Your task to perform on an android device: Go to accessibility settings Image 0: 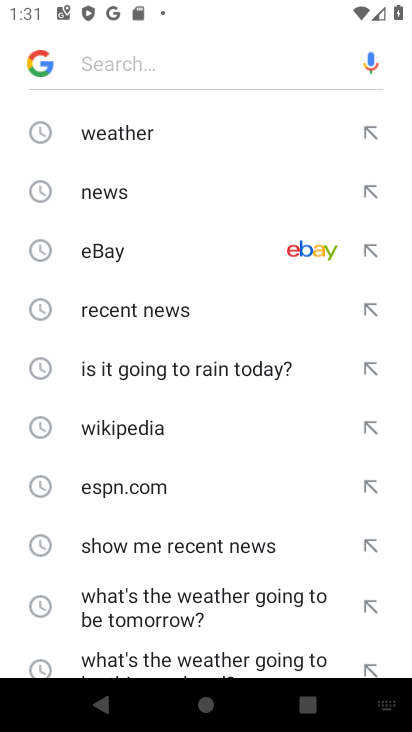
Step 0: press home button
Your task to perform on an android device: Go to accessibility settings Image 1: 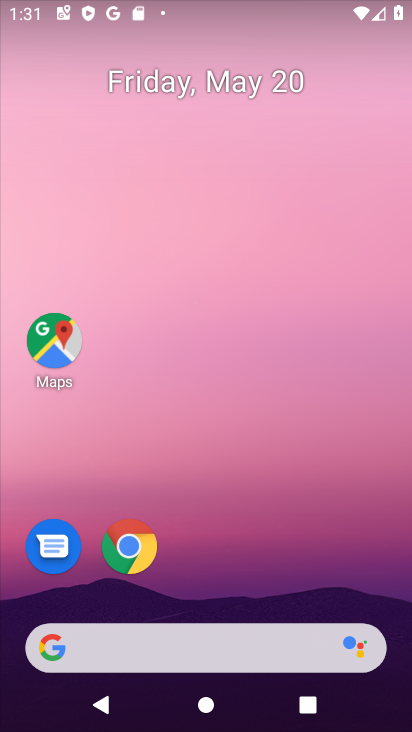
Step 1: drag from (224, 675) to (212, 69)
Your task to perform on an android device: Go to accessibility settings Image 2: 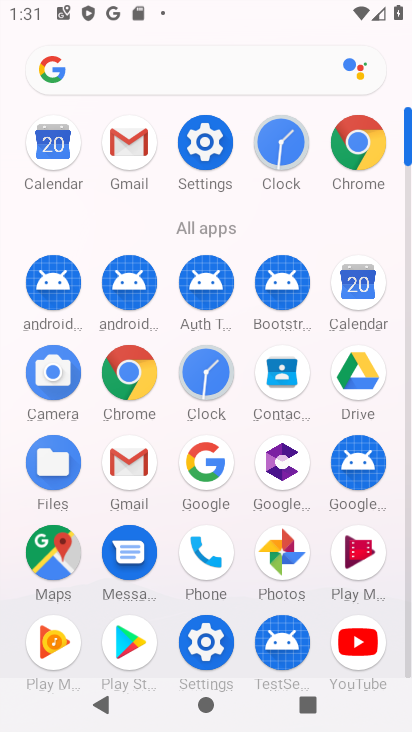
Step 2: click (206, 140)
Your task to perform on an android device: Go to accessibility settings Image 3: 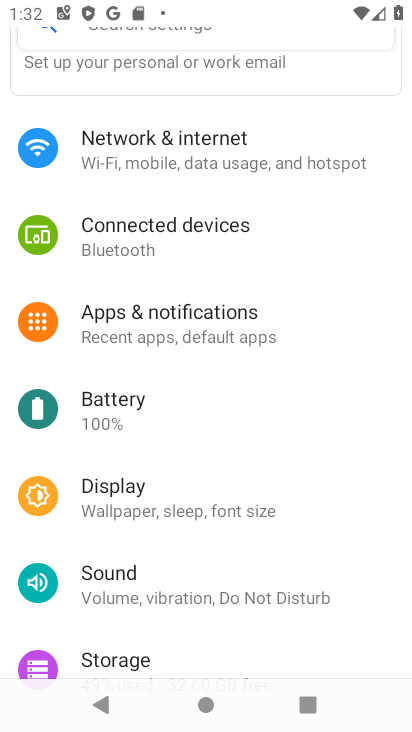
Step 3: drag from (124, 601) to (163, 57)
Your task to perform on an android device: Go to accessibility settings Image 4: 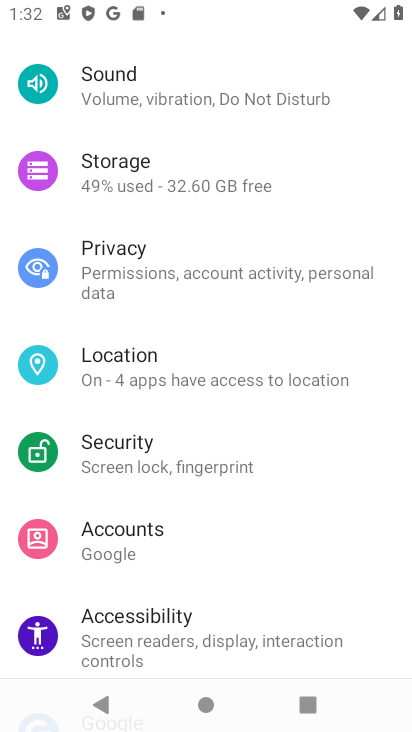
Step 4: click (196, 619)
Your task to perform on an android device: Go to accessibility settings Image 5: 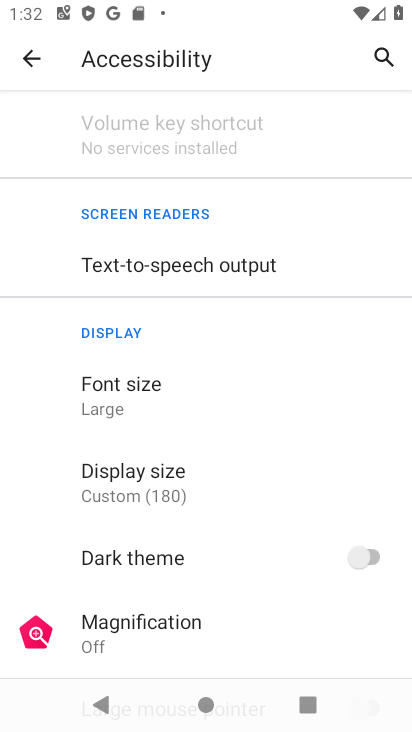
Step 5: task complete